Your task to perform on an android device: Go to Android settings Image 0: 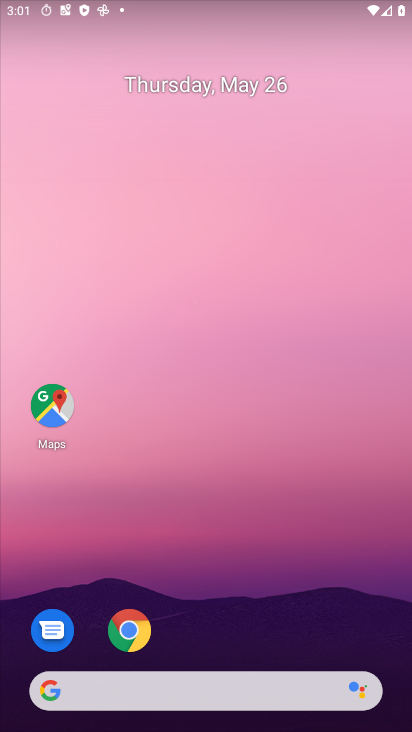
Step 0: drag from (206, 620) to (256, 47)
Your task to perform on an android device: Go to Android settings Image 1: 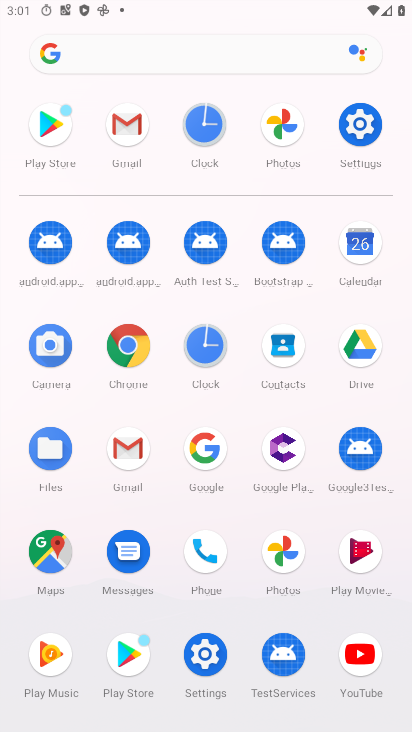
Step 1: click (364, 117)
Your task to perform on an android device: Go to Android settings Image 2: 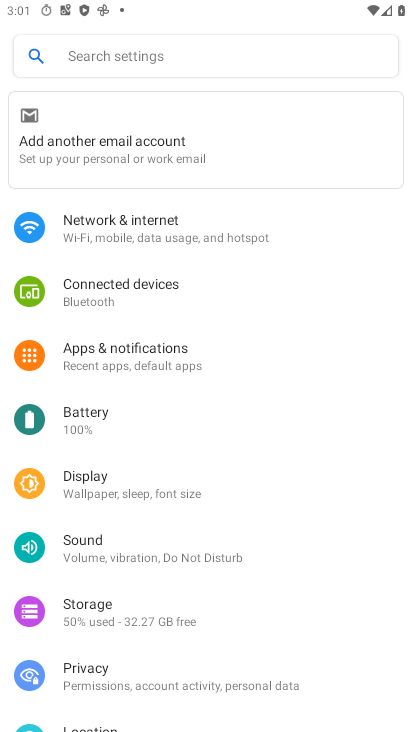
Step 2: task complete